Your task to perform on an android device: turn off smart reply in the gmail app Image 0: 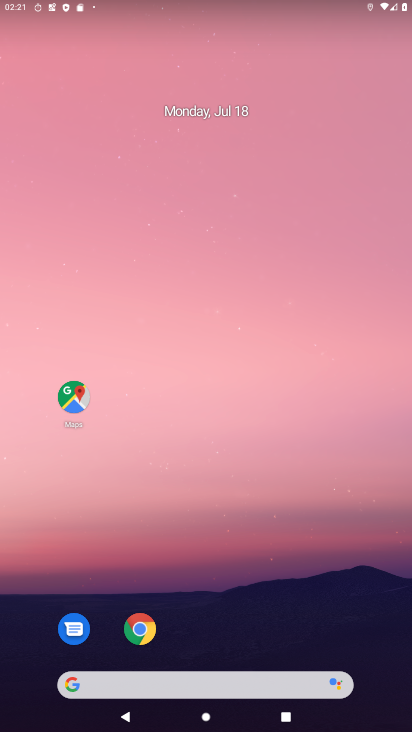
Step 0: drag from (217, 656) to (264, 0)
Your task to perform on an android device: turn off smart reply in the gmail app Image 1: 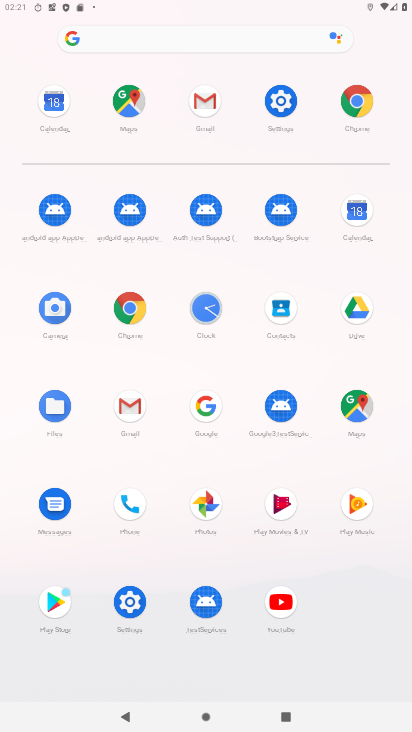
Step 1: click (132, 404)
Your task to perform on an android device: turn off smart reply in the gmail app Image 2: 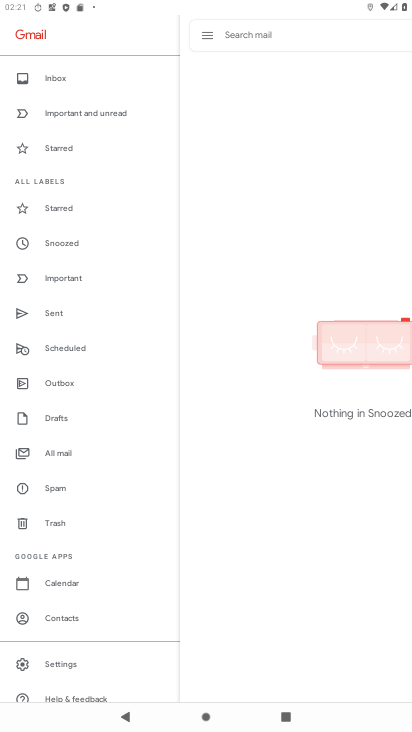
Step 2: click (86, 660)
Your task to perform on an android device: turn off smart reply in the gmail app Image 3: 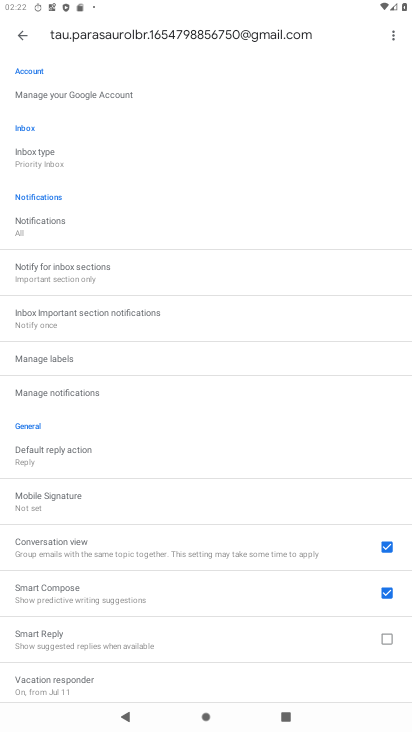
Step 3: task complete